Your task to perform on an android device: Search for "apple airpods pro" on newegg.com, select the first entry, add it to the cart, then select checkout. Image 0: 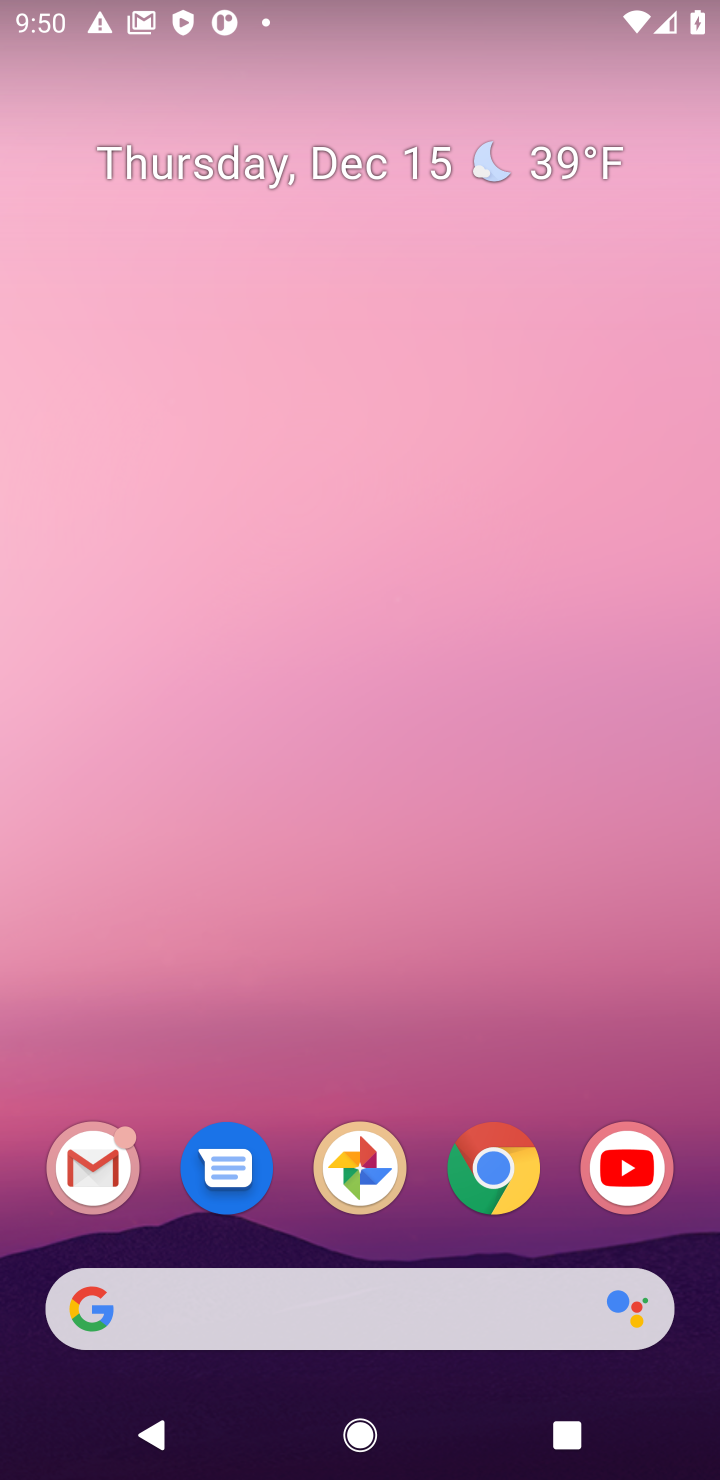
Step 0: click (492, 1159)
Your task to perform on an android device: Search for "apple airpods pro" on newegg.com, select the first entry, add it to the cart, then select checkout. Image 1: 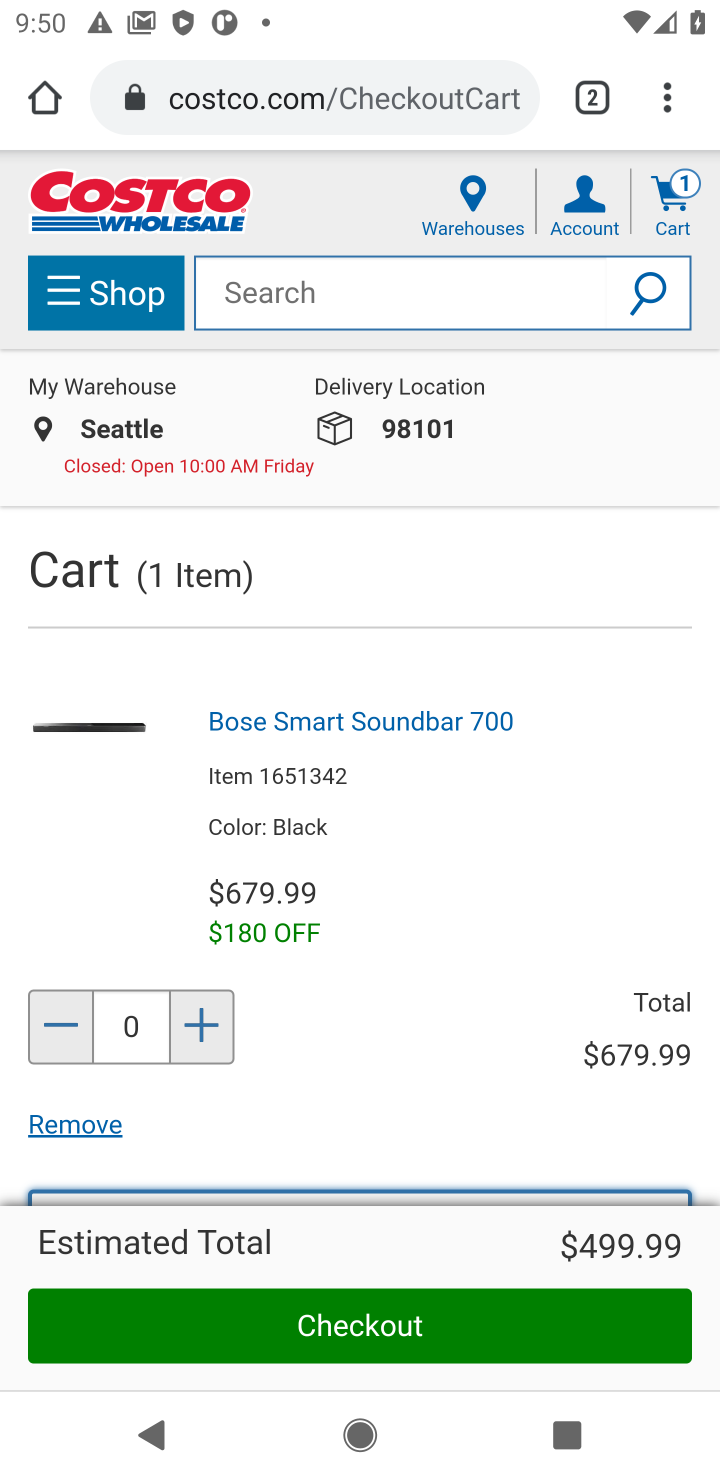
Step 1: click (422, 95)
Your task to perform on an android device: Search for "apple airpods pro" on newegg.com, select the first entry, add it to the cart, then select checkout. Image 2: 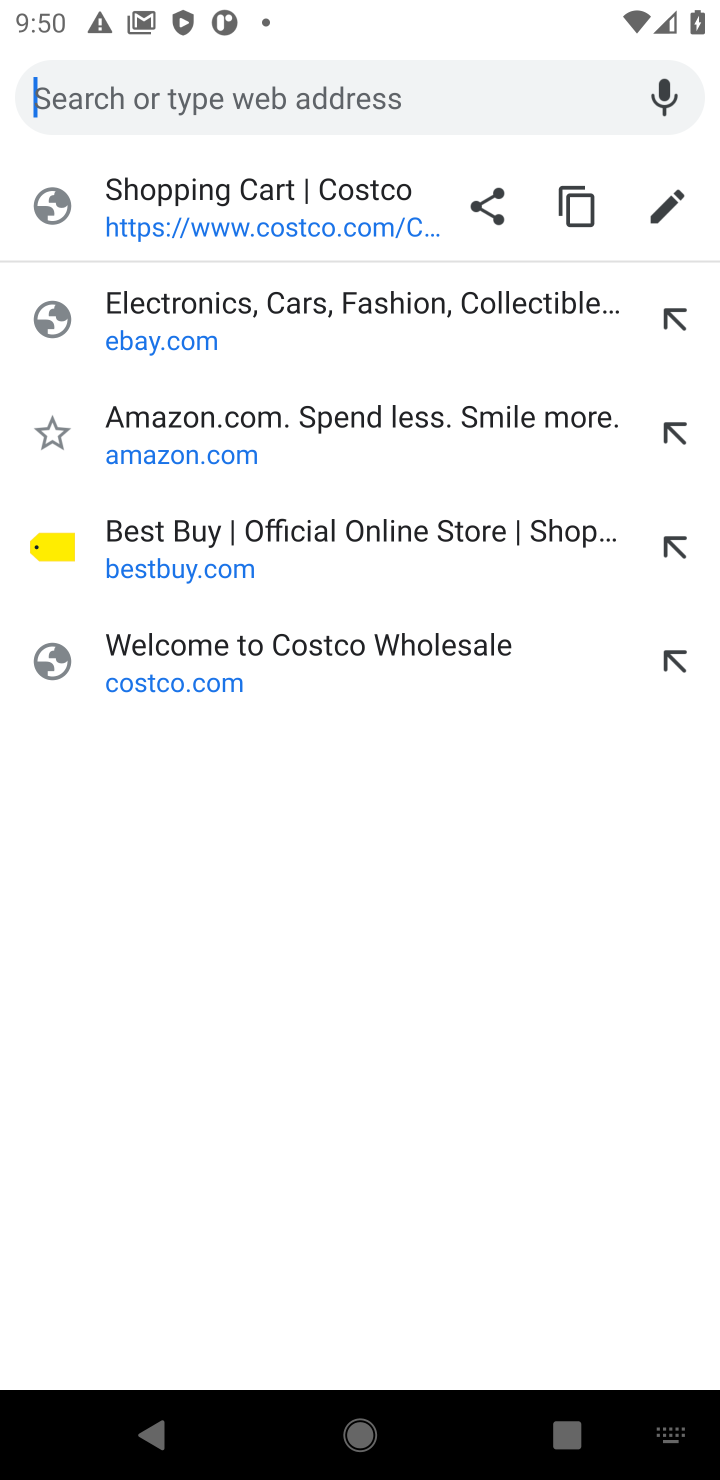
Step 2: type "newegg"
Your task to perform on an android device: Search for "apple airpods pro" on newegg.com, select the first entry, add it to the cart, then select checkout. Image 3: 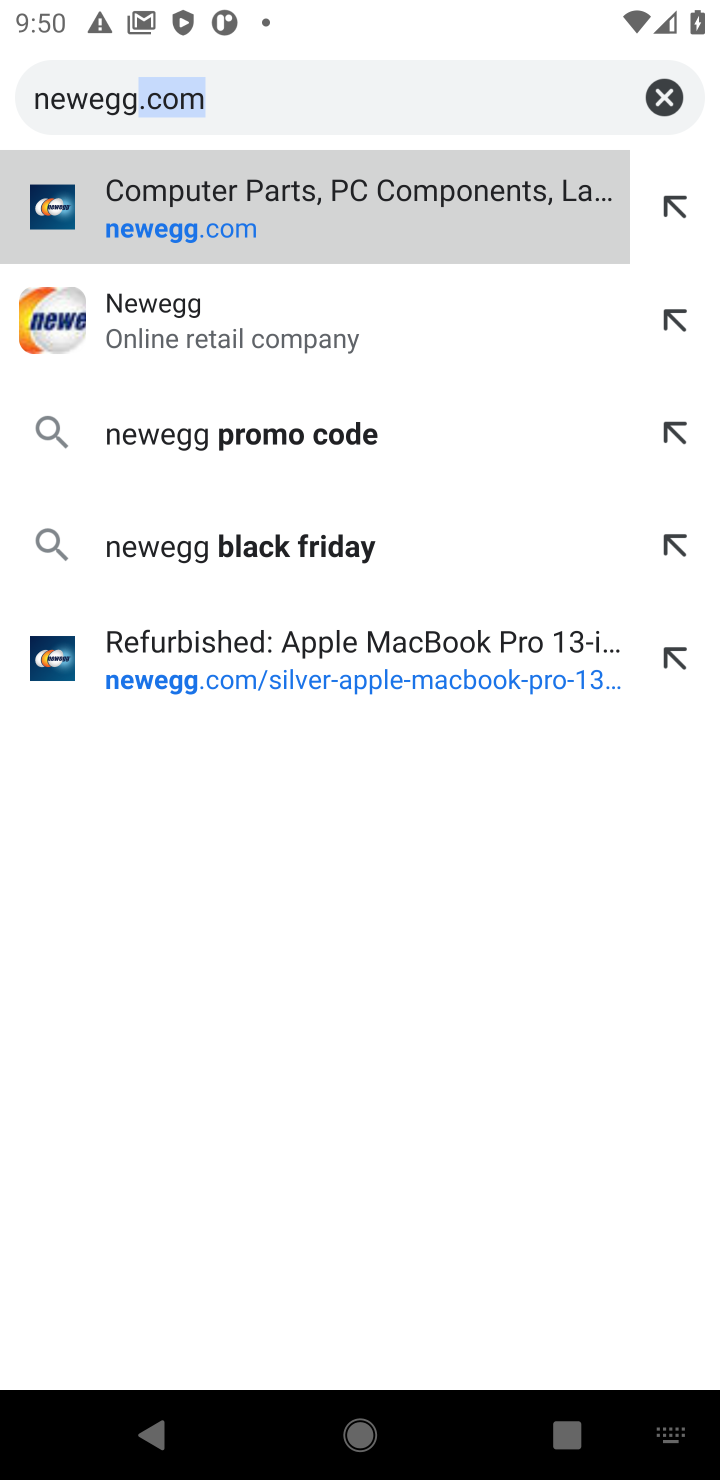
Step 3: click (485, 217)
Your task to perform on an android device: Search for "apple airpods pro" on newegg.com, select the first entry, add it to the cart, then select checkout. Image 4: 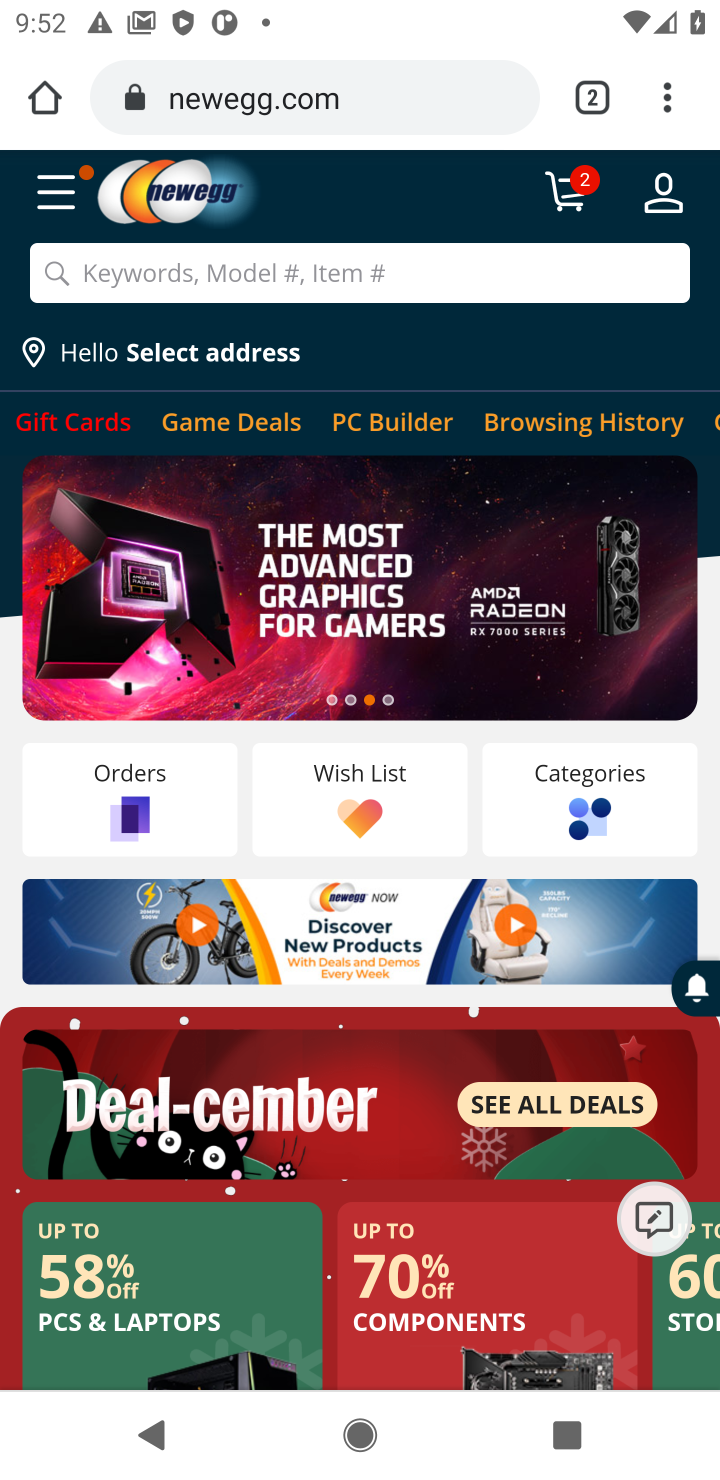
Step 4: click (393, 265)
Your task to perform on an android device: Search for "apple airpods pro" on newegg.com, select the first entry, add it to the cart, then select checkout. Image 5: 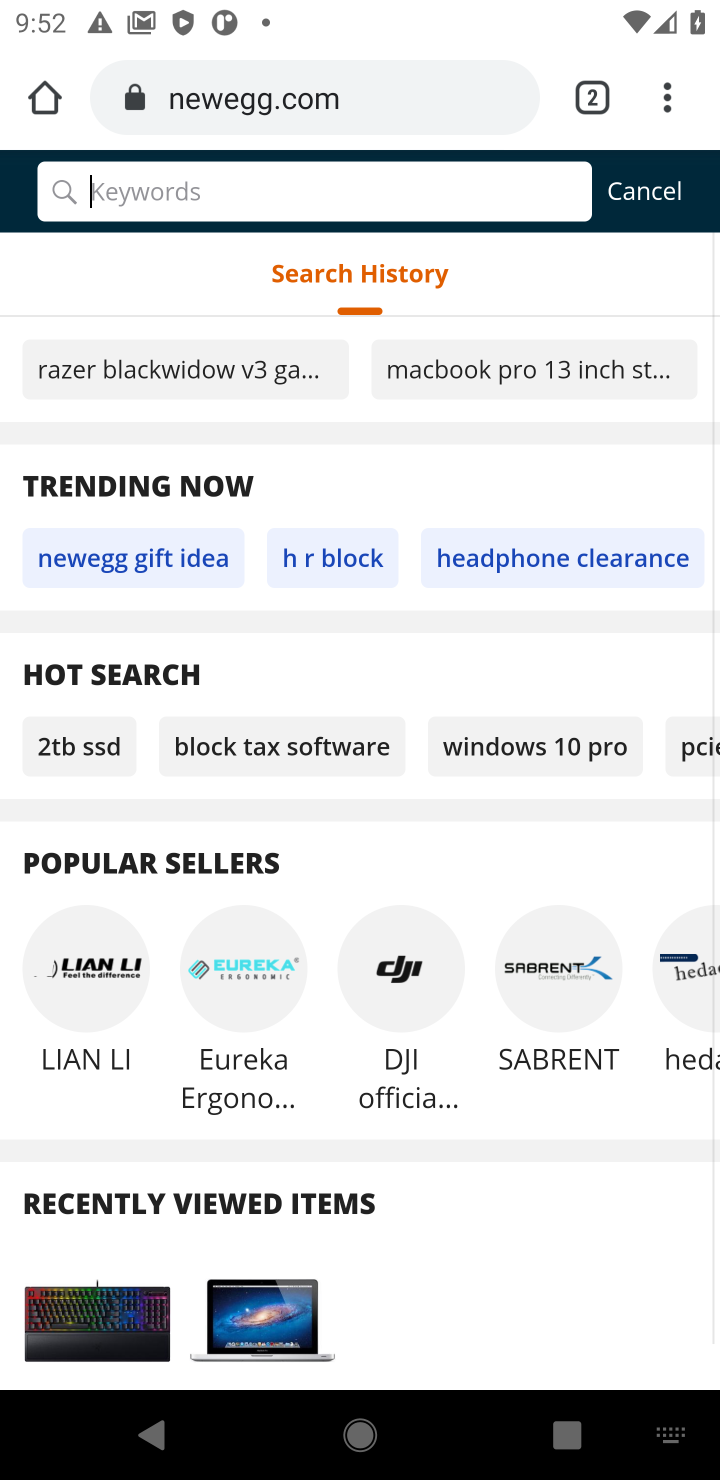
Step 5: type "apple airpods pro"
Your task to perform on an android device: Search for "apple airpods pro" on newegg.com, select the first entry, add it to the cart, then select checkout. Image 6: 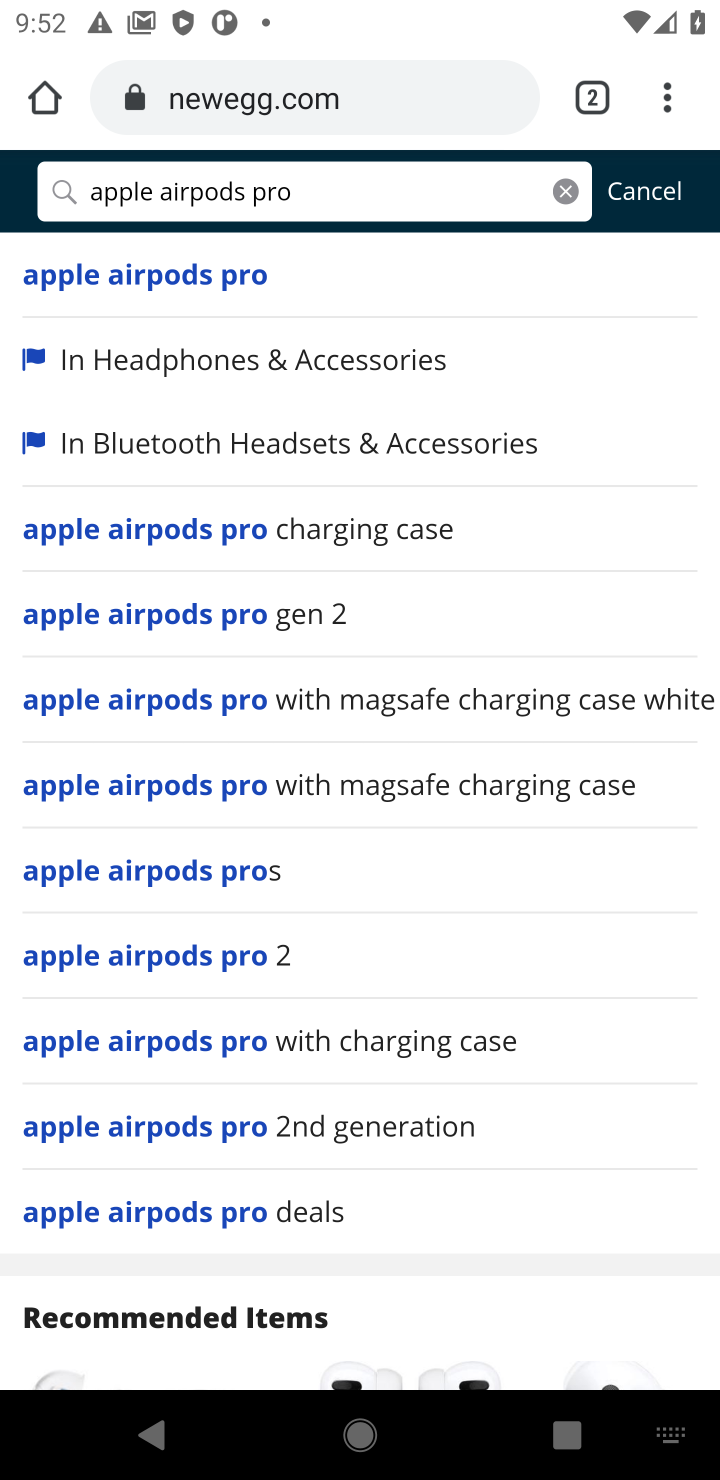
Step 6: click (135, 265)
Your task to perform on an android device: Search for "apple airpods pro" on newegg.com, select the first entry, add it to the cart, then select checkout. Image 7: 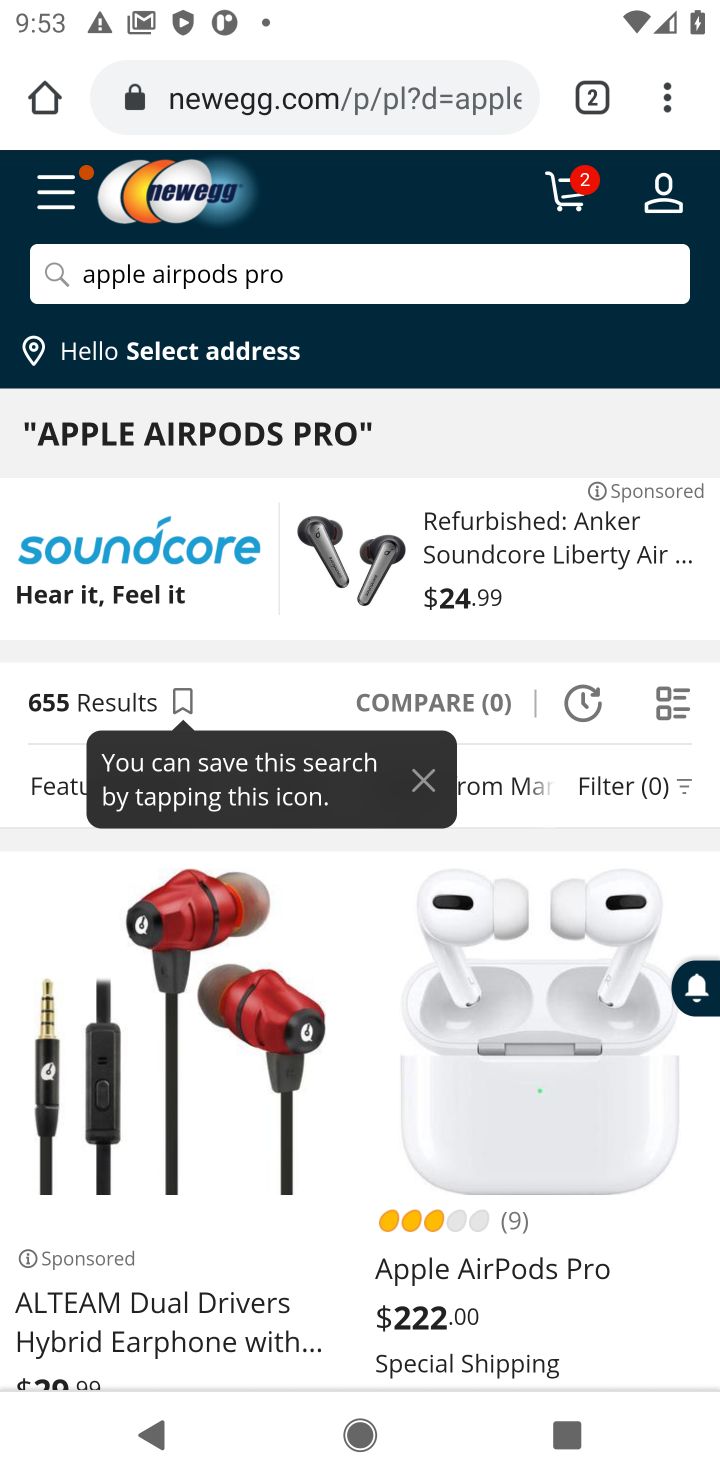
Step 7: click (278, 932)
Your task to perform on an android device: Search for "apple airpods pro" on newegg.com, select the first entry, add it to the cart, then select checkout. Image 8: 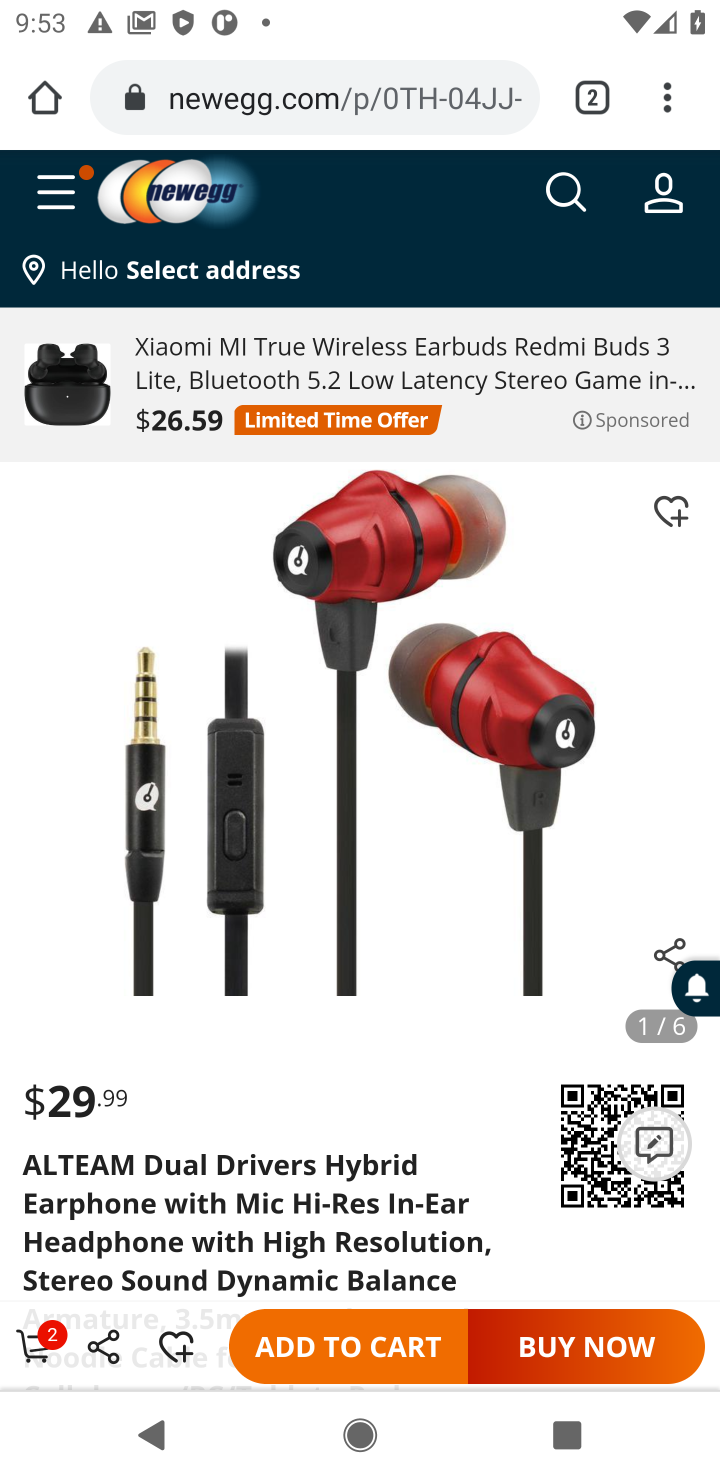
Step 8: click (332, 1337)
Your task to perform on an android device: Search for "apple airpods pro" on newegg.com, select the first entry, add it to the cart, then select checkout. Image 9: 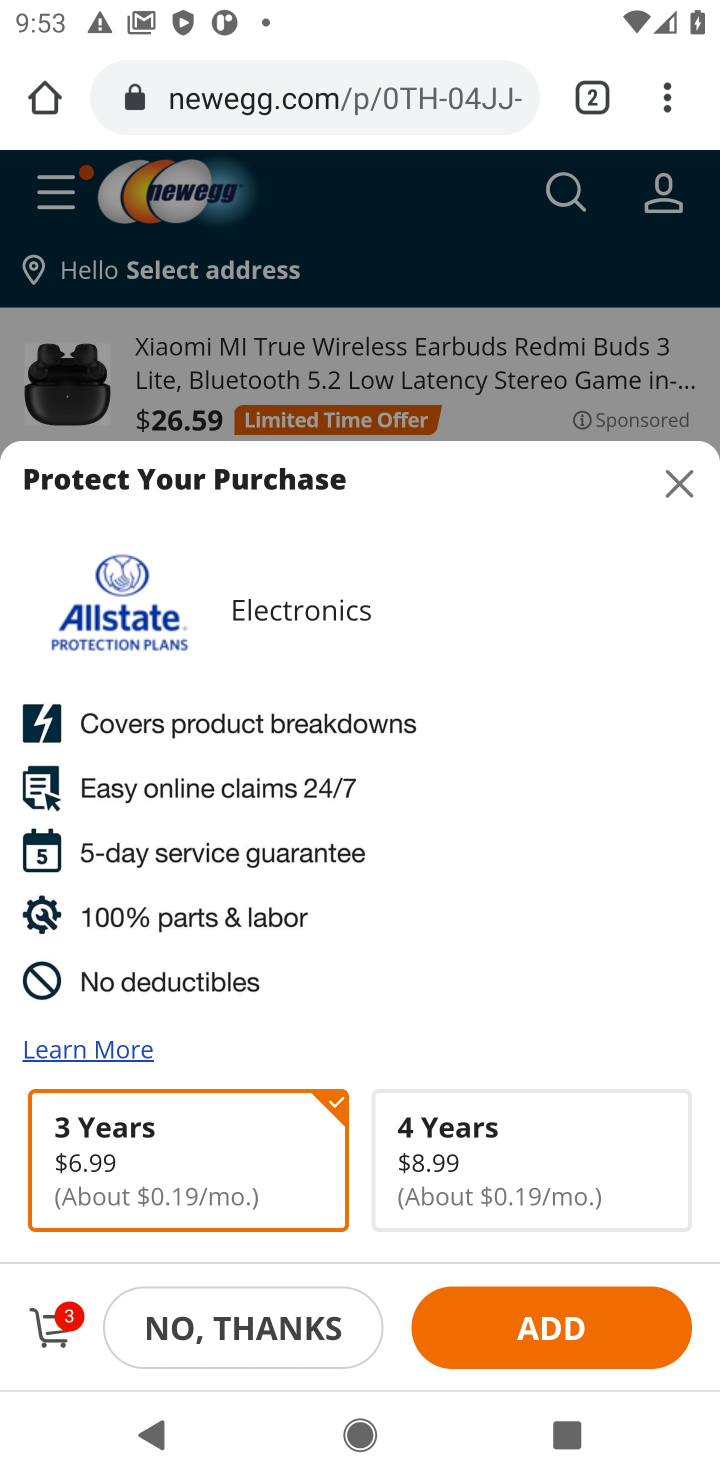
Step 9: click (60, 1323)
Your task to perform on an android device: Search for "apple airpods pro" on newegg.com, select the first entry, add it to the cart, then select checkout. Image 10: 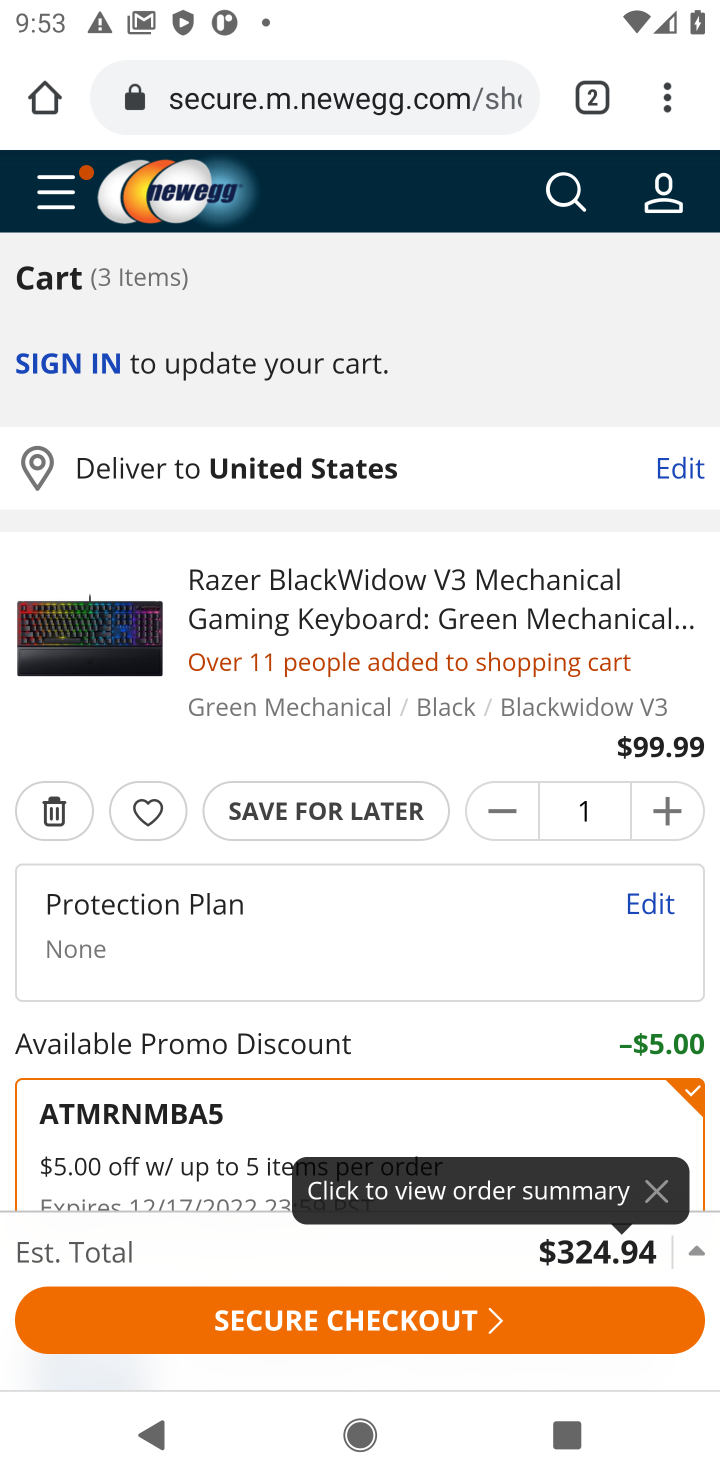
Step 10: click (248, 1313)
Your task to perform on an android device: Search for "apple airpods pro" on newegg.com, select the first entry, add it to the cart, then select checkout. Image 11: 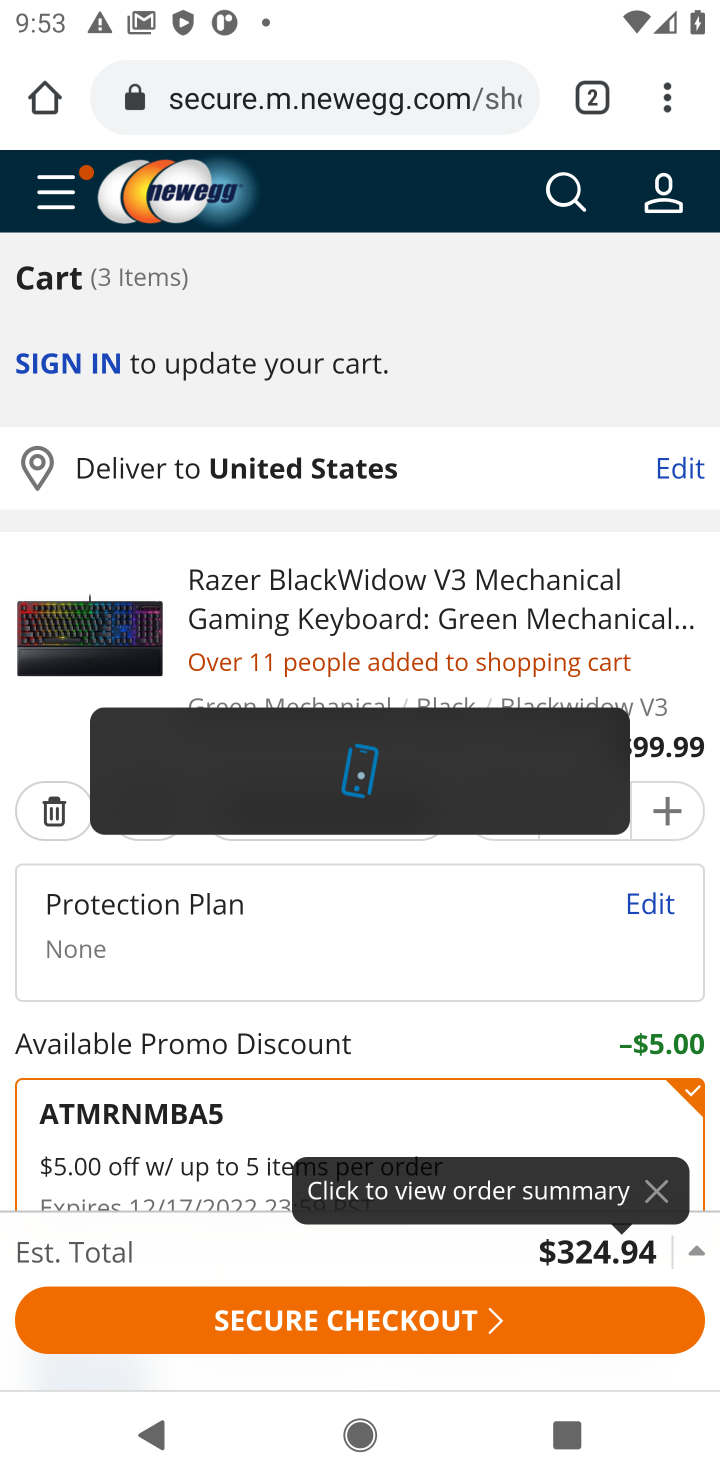
Step 11: task complete